Your task to perform on an android device: Turn on the flashlight Image 0: 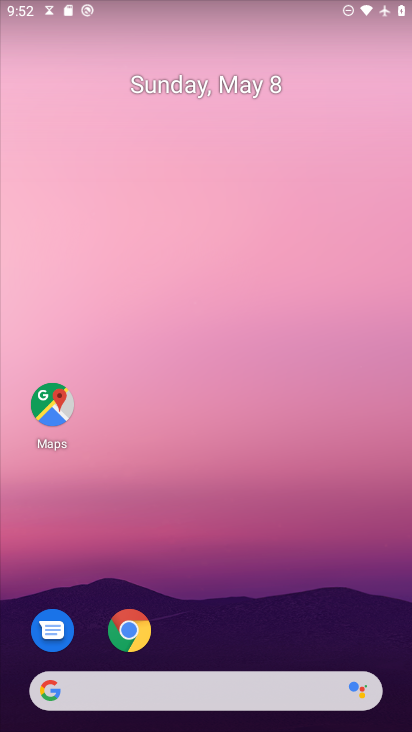
Step 0: click (339, 147)
Your task to perform on an android device: Turn on the flashlight Image 1: 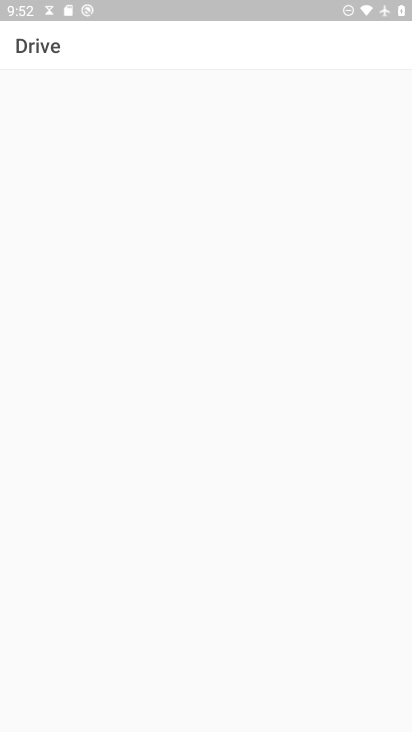
Step 1: task complete